Your task to perform on an android device: When is my next appointment? Image 0: 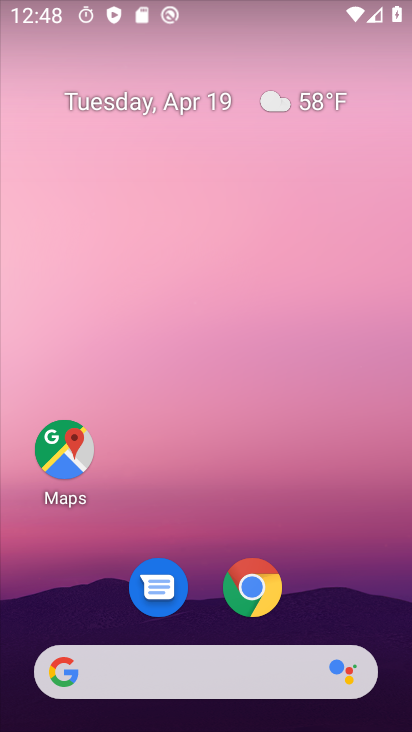
Step 0: drag from (342, 553) to (337, 119)
Your task to perform on an android device: When is my next appointment? Image 1: 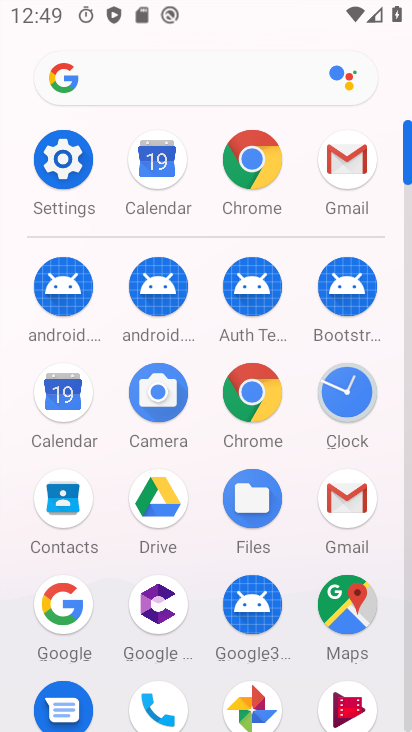
Step 1: click (56, 402)
Your task to perform on an android device: When is my next appointment? Image 2: 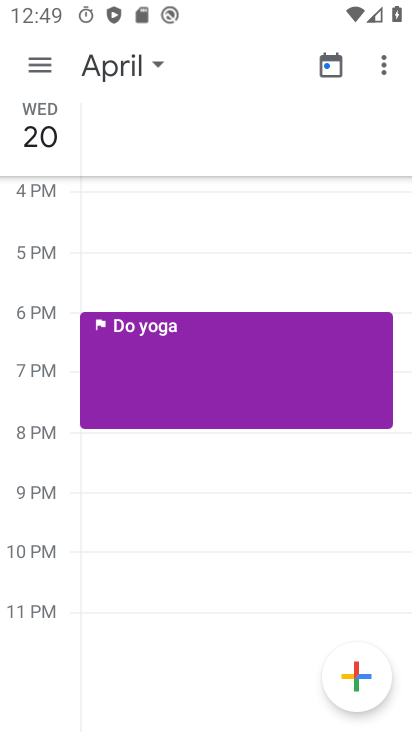
Step 2: click (117, 68)
Your task to perform on an android device: When is my next appointment? Image 3: 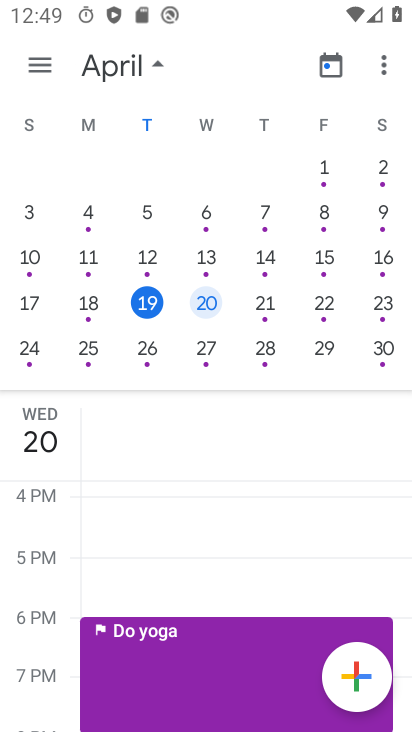
Step 3: click (32, 354)
Your task to perform on an android device: When is my next appointment? Image 4: 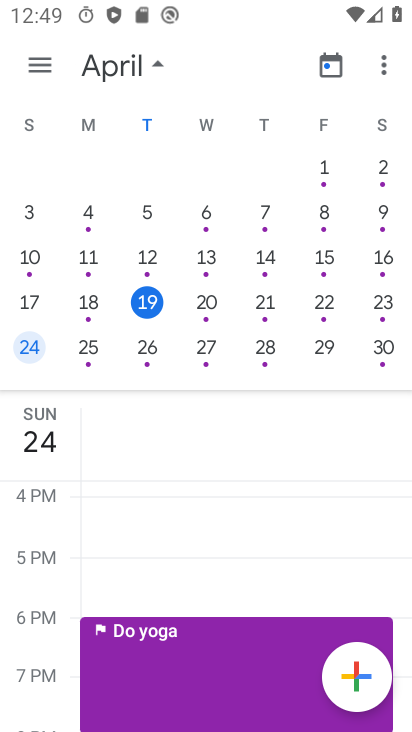
Step 4: drag from (56, 683) to (57, 453)
Your task to perform on an android device: When is my next appointment? Image 5: 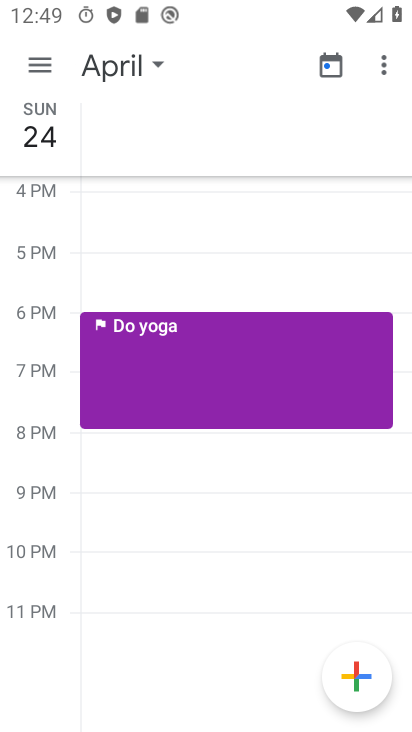
Step 5: drag from (136, 672) to (120, 321)
Your task to perform on an android device: When is my next appointment? Image 6: 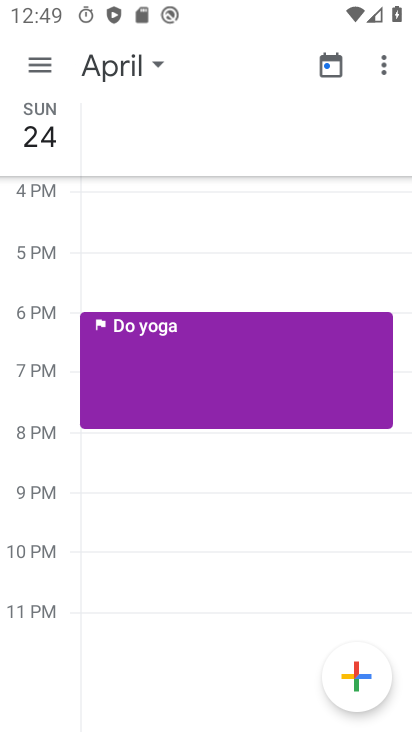
Step 6: drag from (169, 694) to (189, 270)
Your task to perform on an android device: When is my next appointment? Image 7: 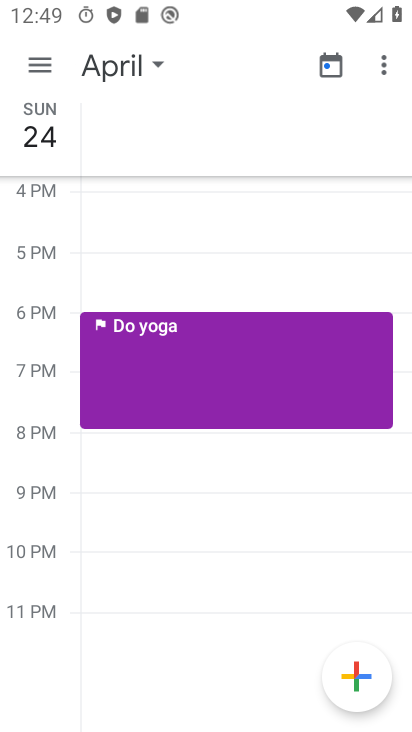
Step 7: drag from (198, 625) to (223, 219)
Your task to perform on an android device: When is my next appointment? Image 8: 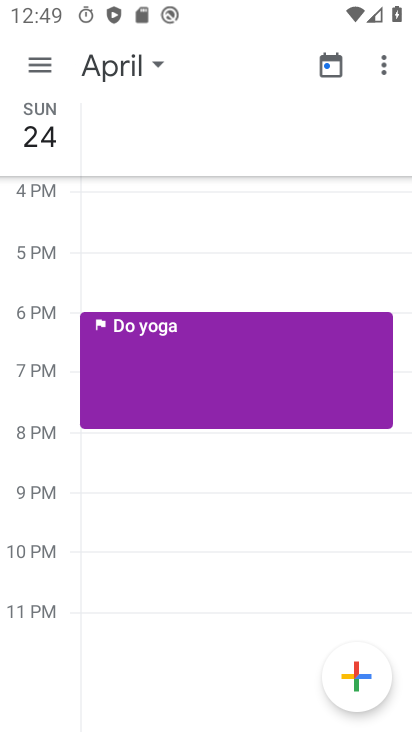
Step 8: drag from (194, 614) to (238, 253)
Your task to perform on an android device: When is my next appointment? Image 9: 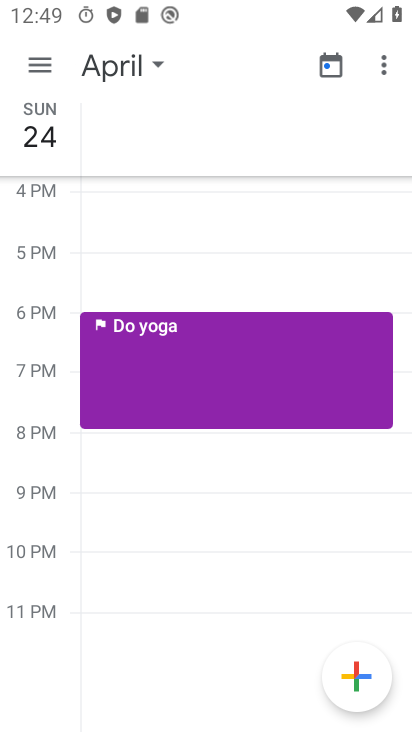
Step 9: click (33, 71)
Your task to perform on an android device: When is my next appointment? Image 10: 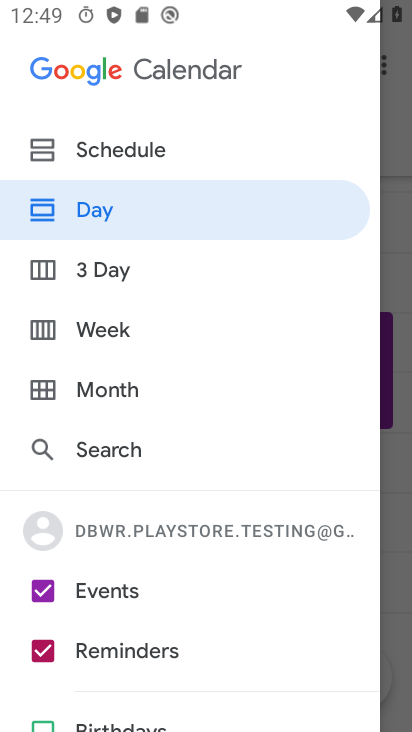
Step 10: drag from (230, 620) to (237, 355)
Your task to perform on an android device: When is my next appointment? Image 11: 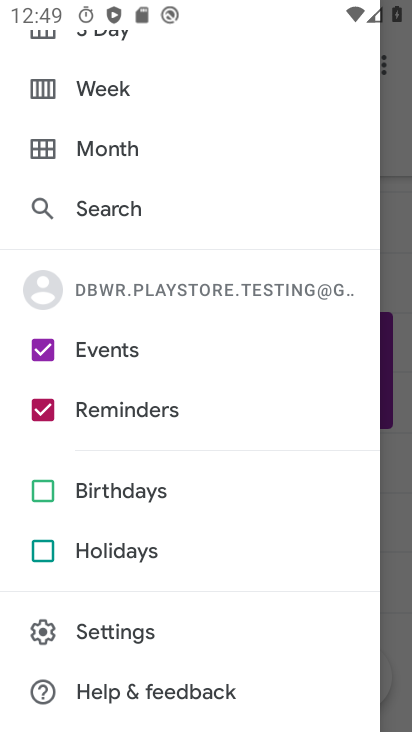
Step 11: click (43, 413)
Your task to perform on an android device: When is my next appointment? Image 12: 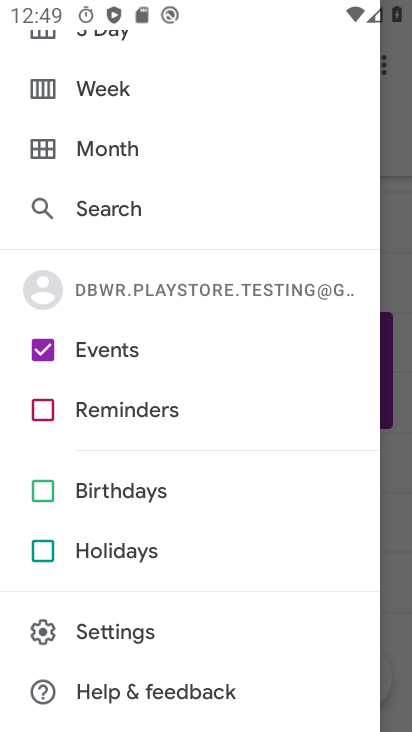
Step 12: click (396, 465)
Your task to perform on an android device: When is my next appointment? Image 13: 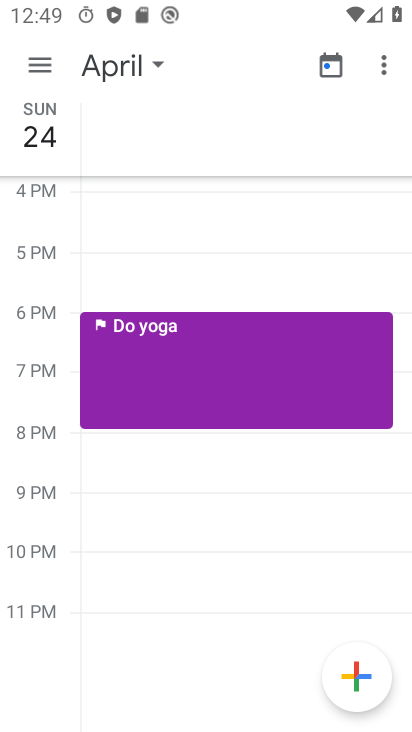
Step 13: drag from (191, 641) to (231, 241)
Your task to perform on an android device: When is my next appointment? Image 14: 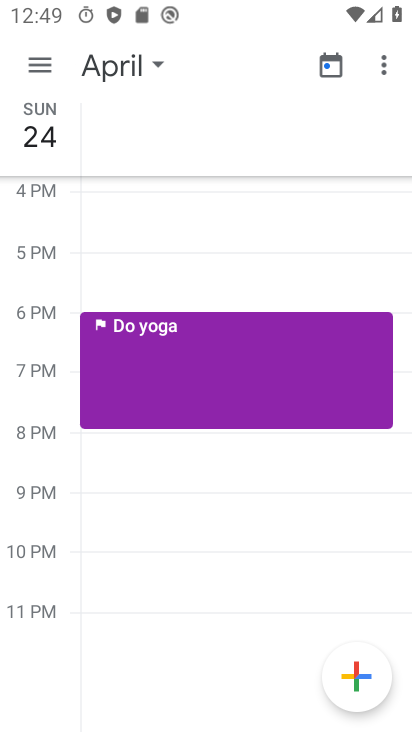
Step 14: drag from (198, 196) to (203, 652)
Your task to perform on an android device: When is my next appointment? Image 15: 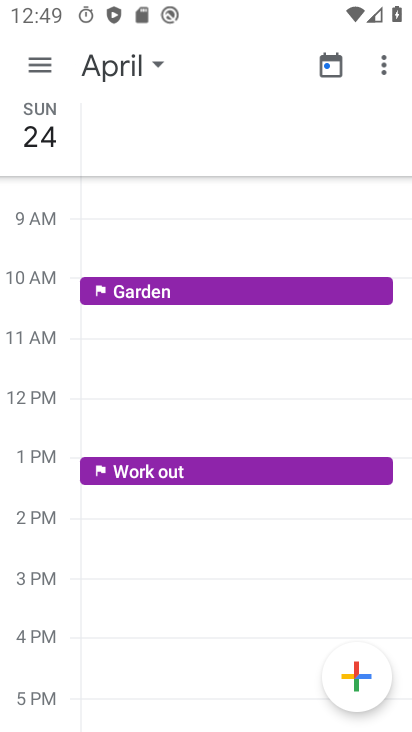
Step 15: drag from (155, 281) to (237, 640)
Your task to perform on an android device: When is my next appointment? Image 16: 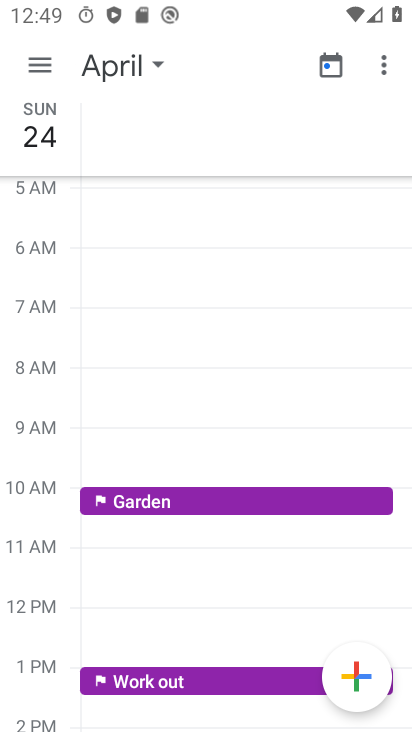
Step 16: click (34, 68)
Your task to perform on an android device: When is my next appointment? Image 17: 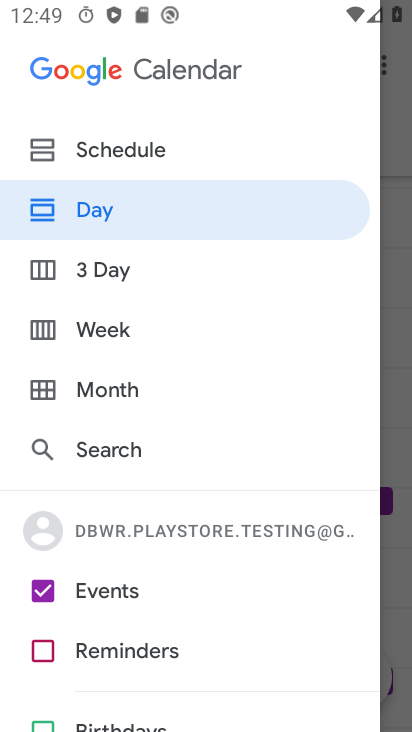
Step 17: click (87, 144)
Your task to perform on an android device: When is my next appointment? Image 18: 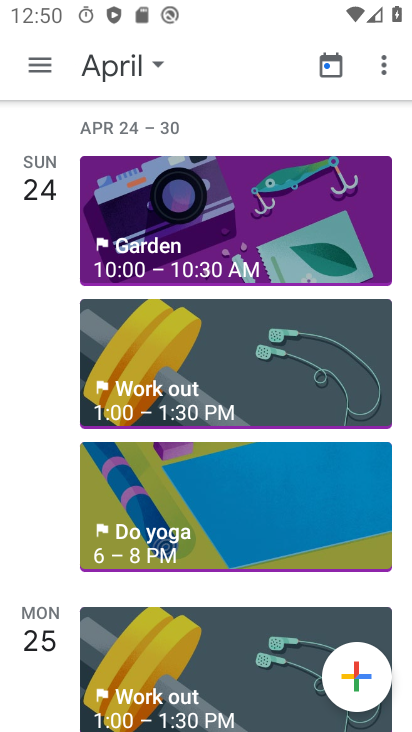
Step 18: task complete